Your task to perform on an android device: turn on bluetooth scan Image 0: 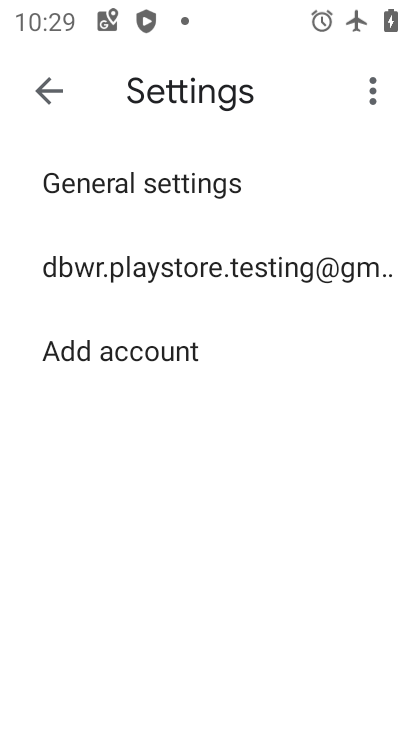
Step 0: press home button
Your task to perform on an android device: turn on bluetooth scan Image 1: 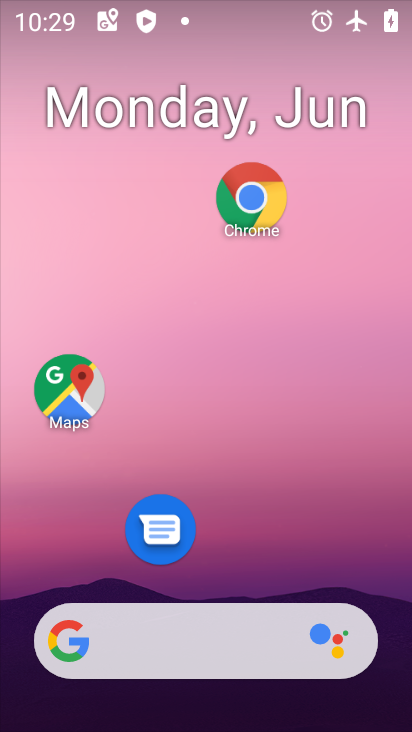
Step 1: drag from (247, 571) to (200, 99)
Your task to perform on an android device: turn on bluetooth scan Image 2: 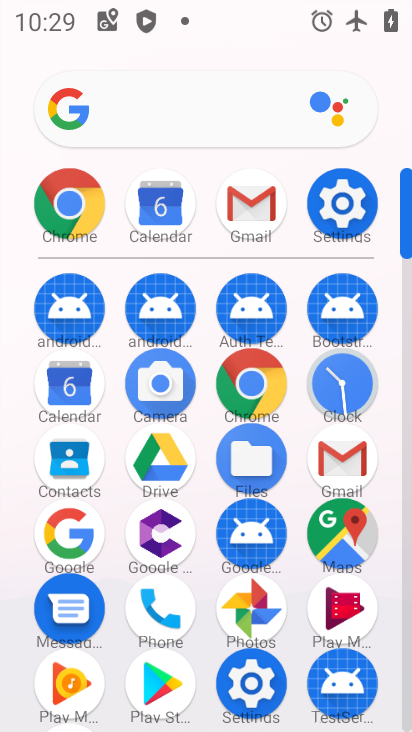
Step 2: click (323, 204)
Your task to perform on an android device: turn on bluetooth scan Image 3: 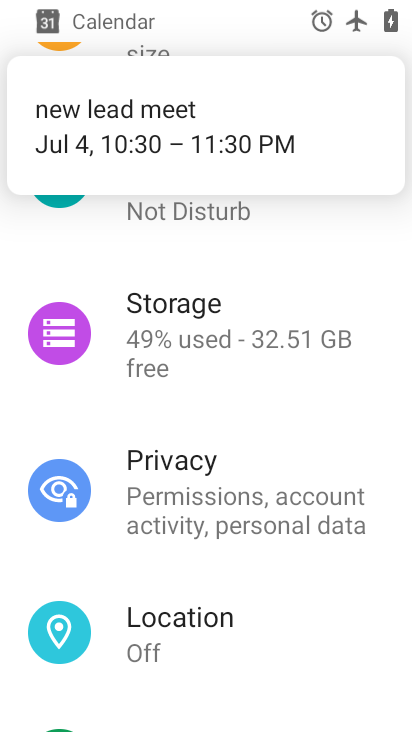
Step 3: drag from (247, 625) to (288, 429)
Your task to perform on an android device: turn on bluetooth scan Image 4: 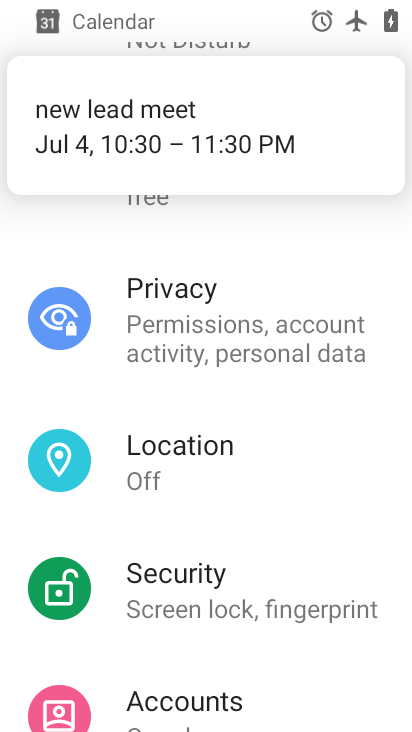
Step 4: click (259, 446)
Your task to perform on an android device: turn on bluetooth scan Image 5: 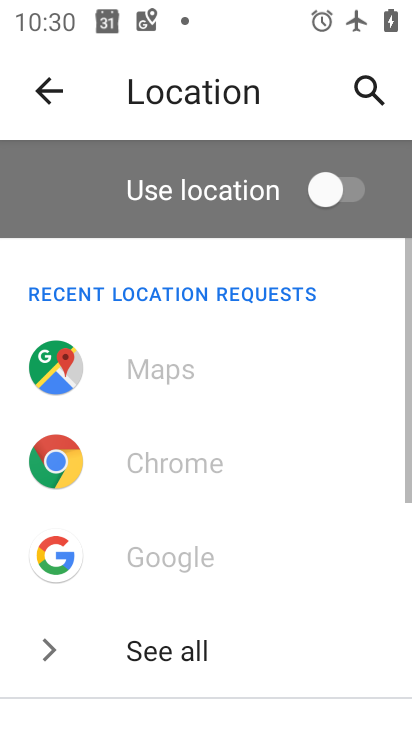
Step 5: drag from (253, 622) to (251, 314)
Your task to perform on an android device: turn on bluetooth scan Image 6: 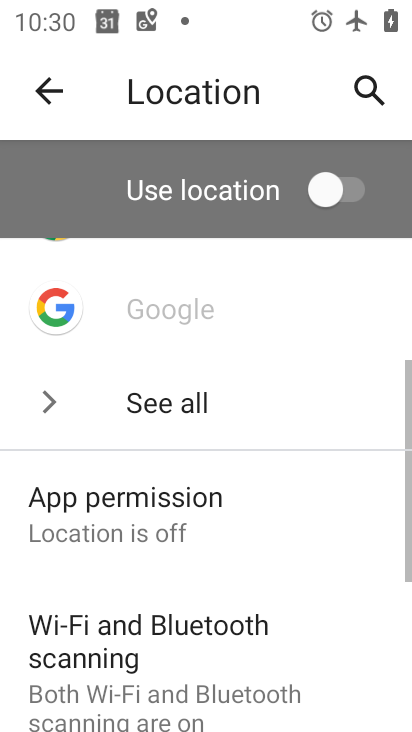
Step 6: drag from (248, 534) to (260, 297)
Your task to perform on an android device: turn on bluetooth scan Image 7: 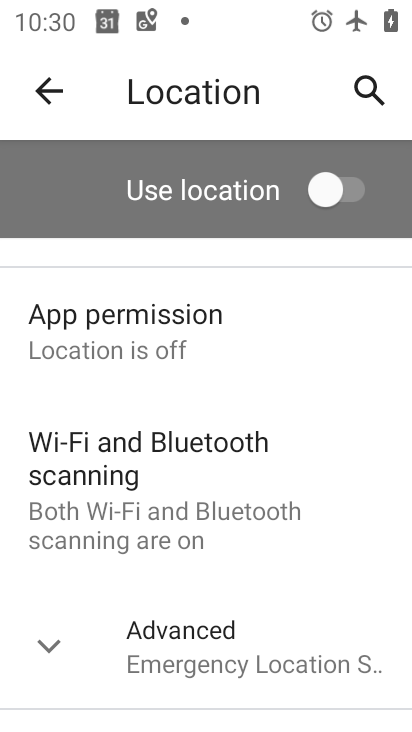
Step 7: click (196, 514)
Your task to perform on an android device: turn on bluetooth scan Image 8: 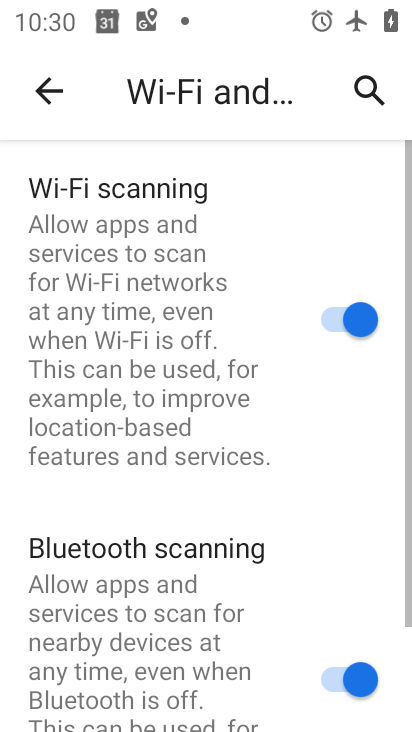
Step 8: task complete